Your task to perform on an android device: Open the web browser Image 0: 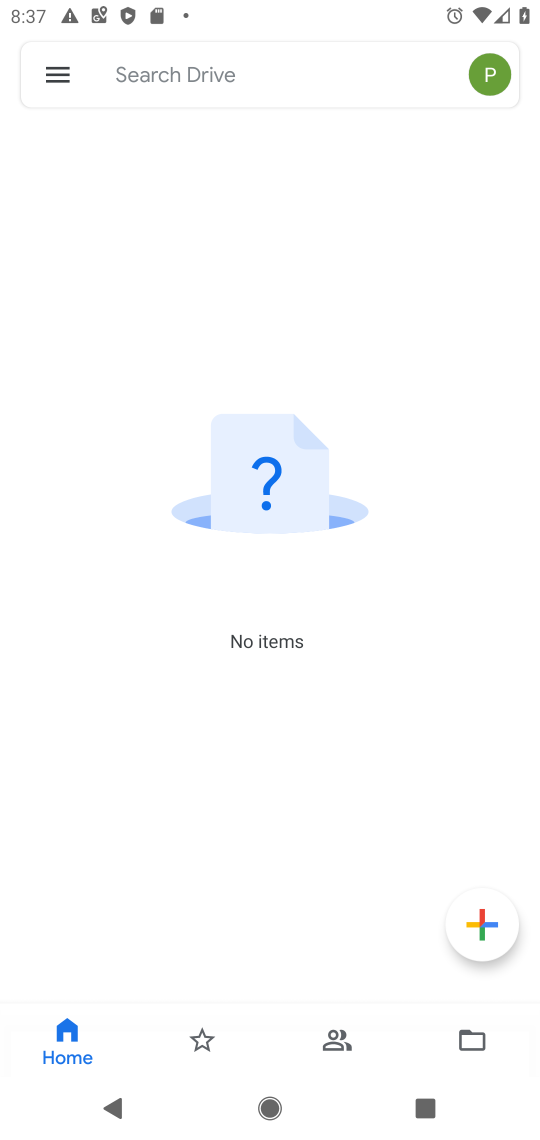
Step 0: press home button
Your task to perform on an android device: Open the web browser Image 1: 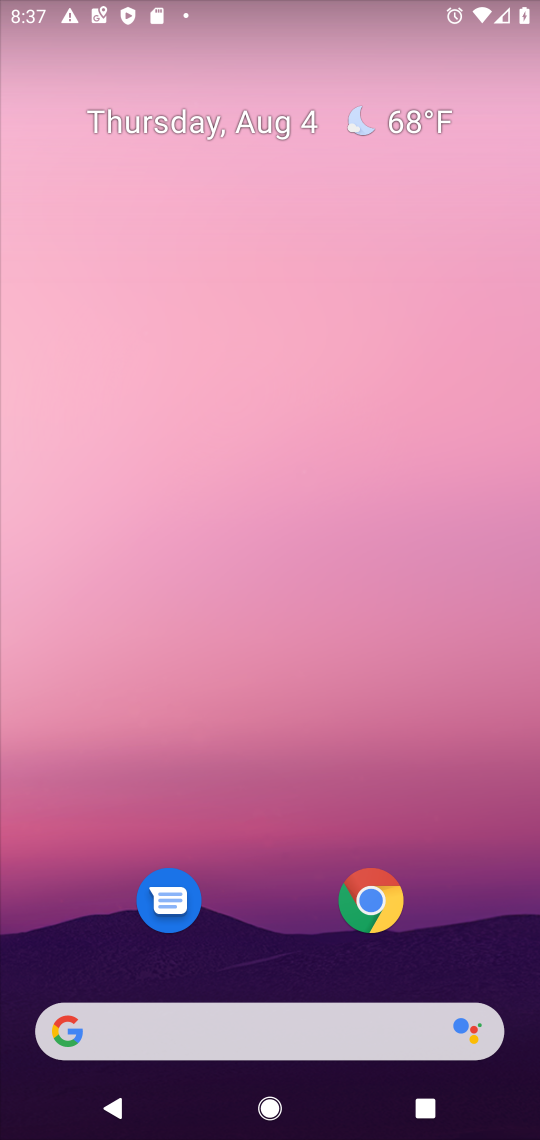
Step 1: click (373, 902)
Your task to perform on an android device: Open the web browser Image 2: 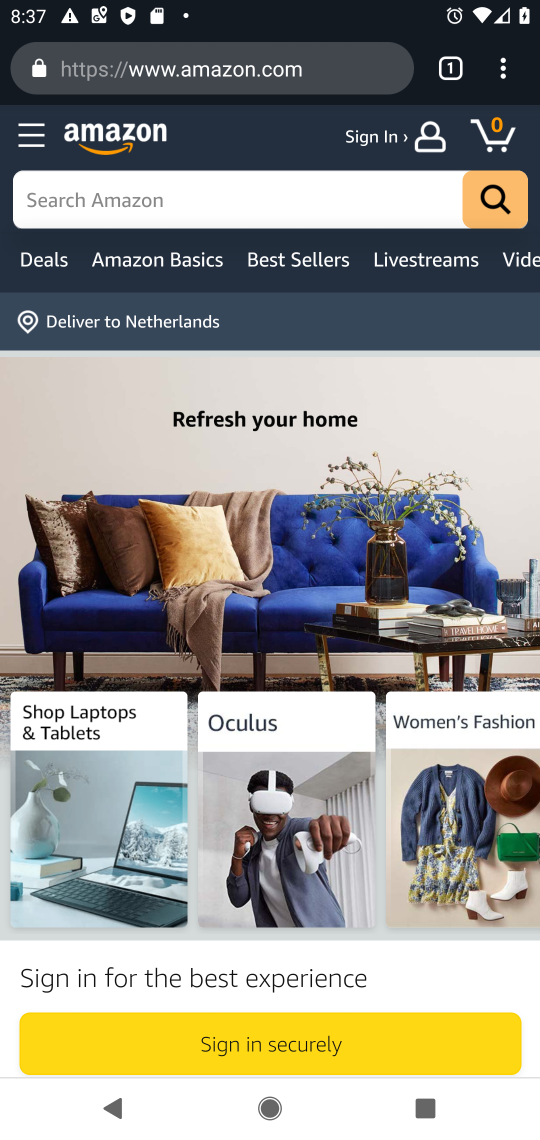
Step 2: task complete